Your task to perform on an android device: Open Youtube and go to the subscriptions tab Image 0: 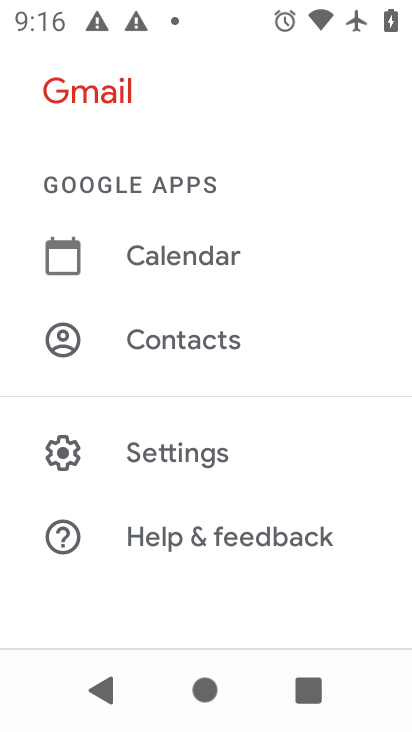
Step 0: press home button
Your task to perform on an android device: Open Youtube and go to the subscriptions tab Image 1: 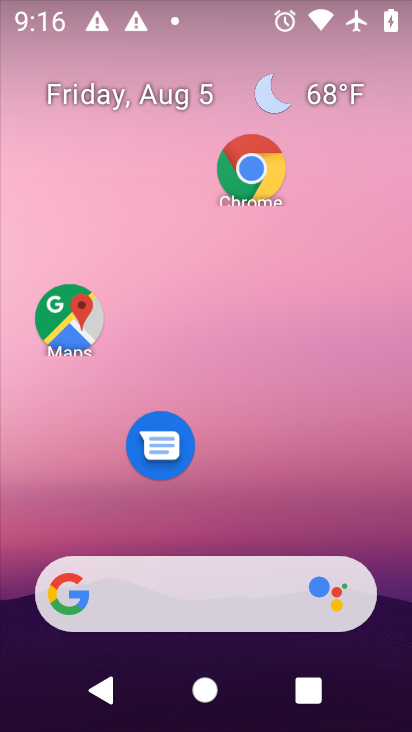
Step 1: drag from (230, 508) to (192, 137)
Your task to perform on an android device: Open Youtube and go to the subscriptions tab Image 2: 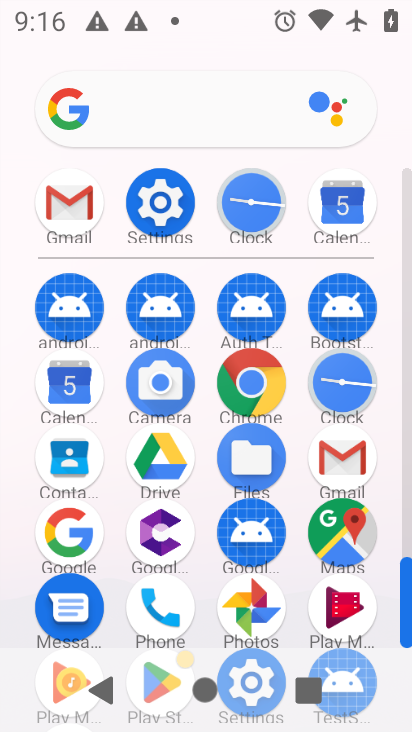
Step 2: drag from (199, 521) to (199, 208)
Your task to perform on an android device: Open Youtube and go to the subscriptions tab Image 3: 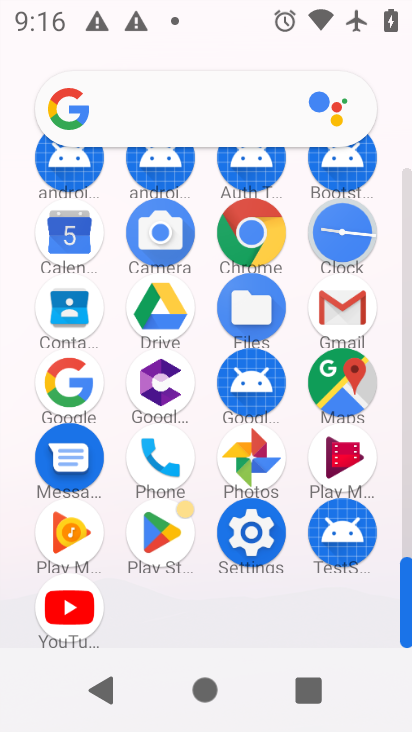
Step 3: click (65, 613)
Your task to perform on an android device: Open Youtube and go to the subscriptions tab Image 4: 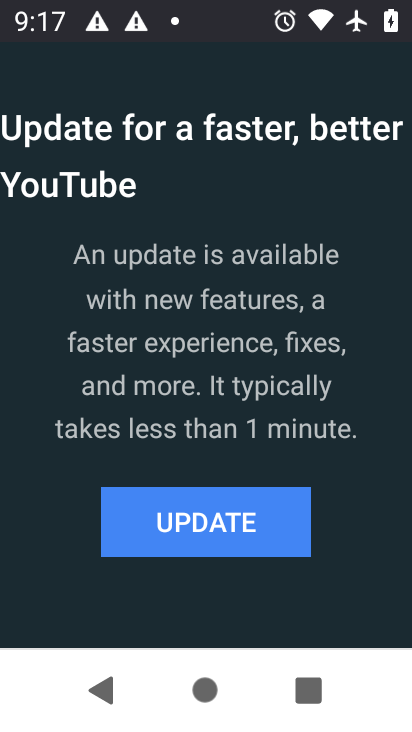
Step 4: click (202, 522)
Your task to perform on an android device: Open Youtube and go to the subscriptions tab Image 5: 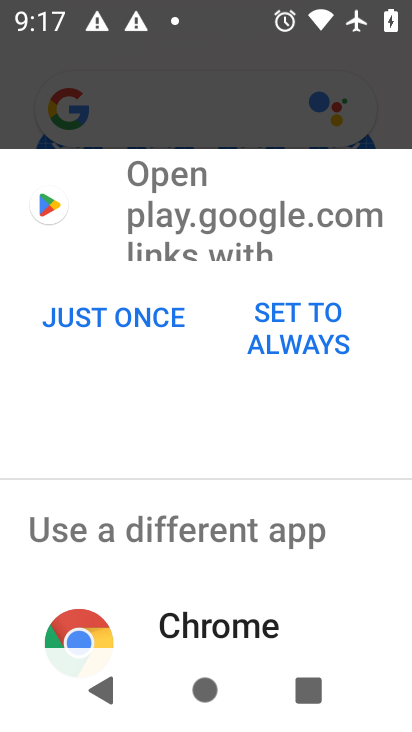
Step 5: click (123, 314)
Your task to perform on an android device: Open Youtube and go to the subscriptions tab Image 6: 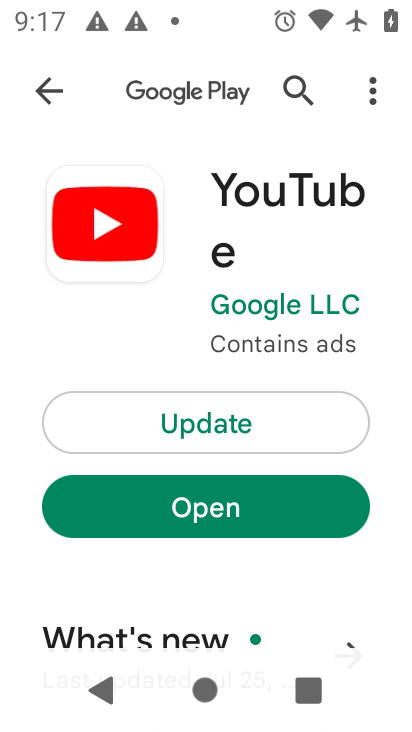
Step 6: click (183, 429)
Your task to perform on an android device: Open Youtube and go to the subscriptions tab Image 7: 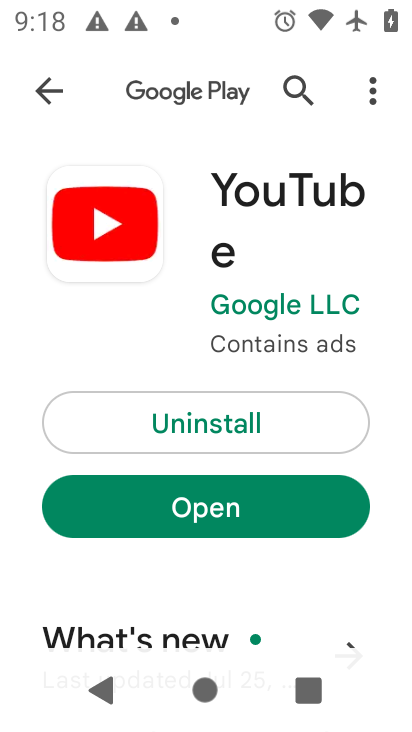
Step 7: click (208, 525)
Your task to perform on an android device: Open Youtube and go to the subscriptions tab Image 8: 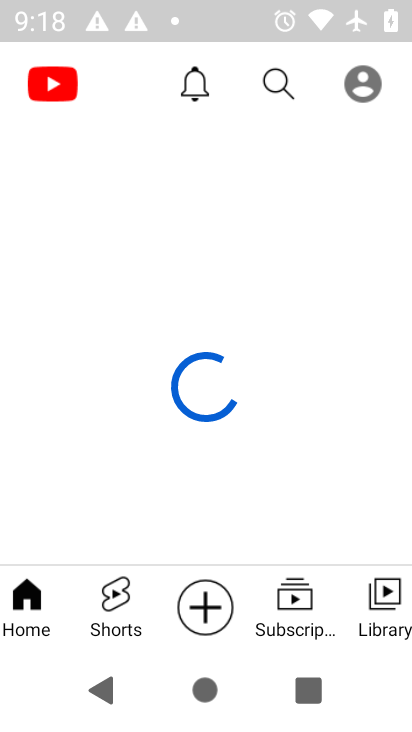
Step 8: click (247, 594)
Your task to perform on an android device: Open Youtube and go to the subscriptions tab Image 9: 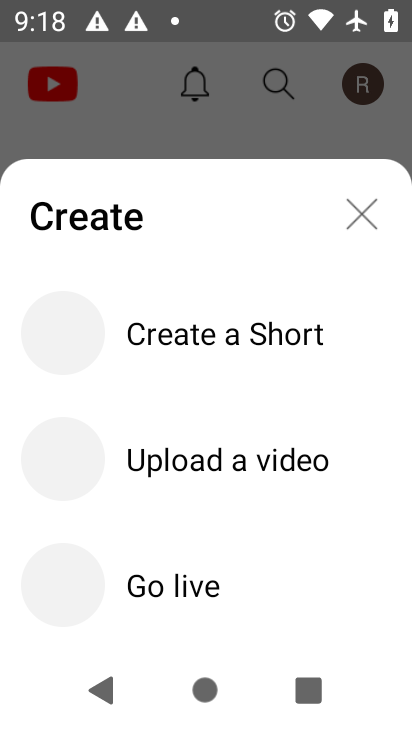
Step 9: click (286, 600)
Your task to perform on an android device: Open Youtube and go to the subscriptions tab Image 10: 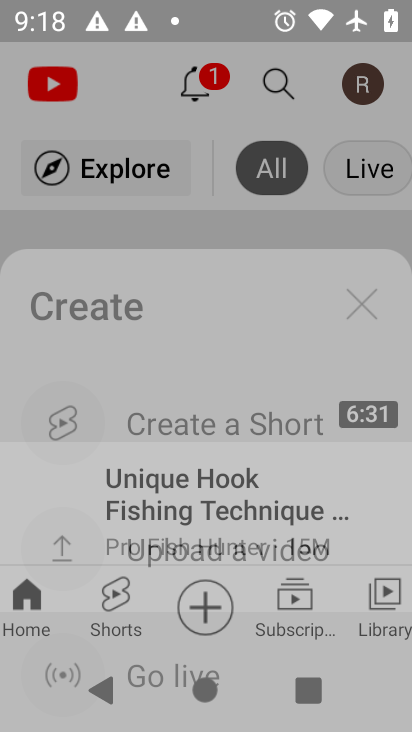
Step 10: drag from (286, 600) to (294, 251)
Your task to perform on an android device: Open Youtube and go to the subscriptions tab Image 11: 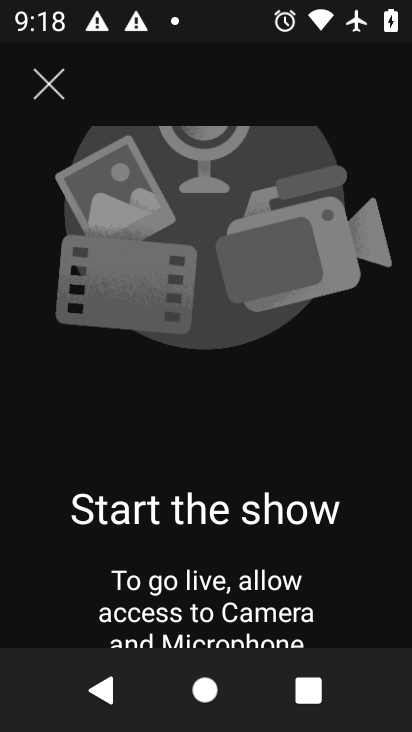
Step 11: press back button
Your task to perform on an android device: Open Youtube and go to the subscriptions tab Image 12: 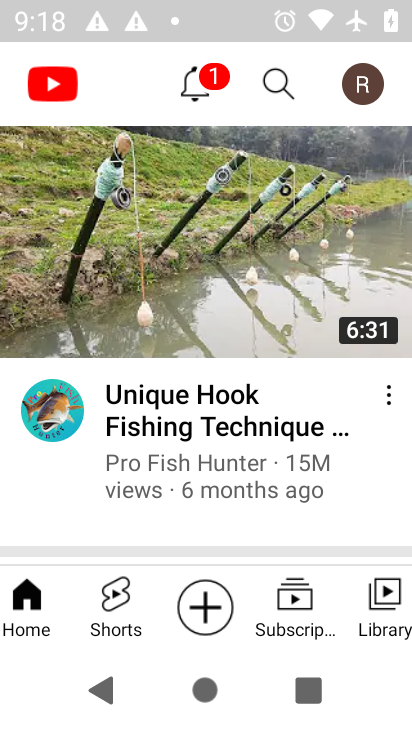
Step 12: click (307, 601)
Your task to perform on an android device: Open Youtube and go to the subscriptions tab Image 13: 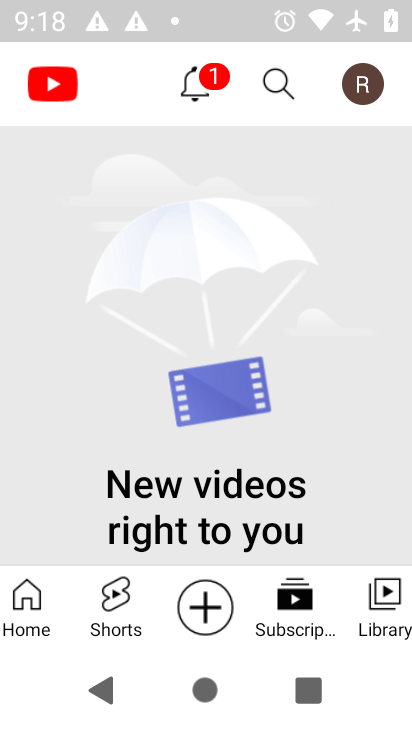
Step 13: task complete